Your task to perform on an android device: Empty the shopping cart on newegg. Add alienware area 51 to the cart on newegg Image 0: 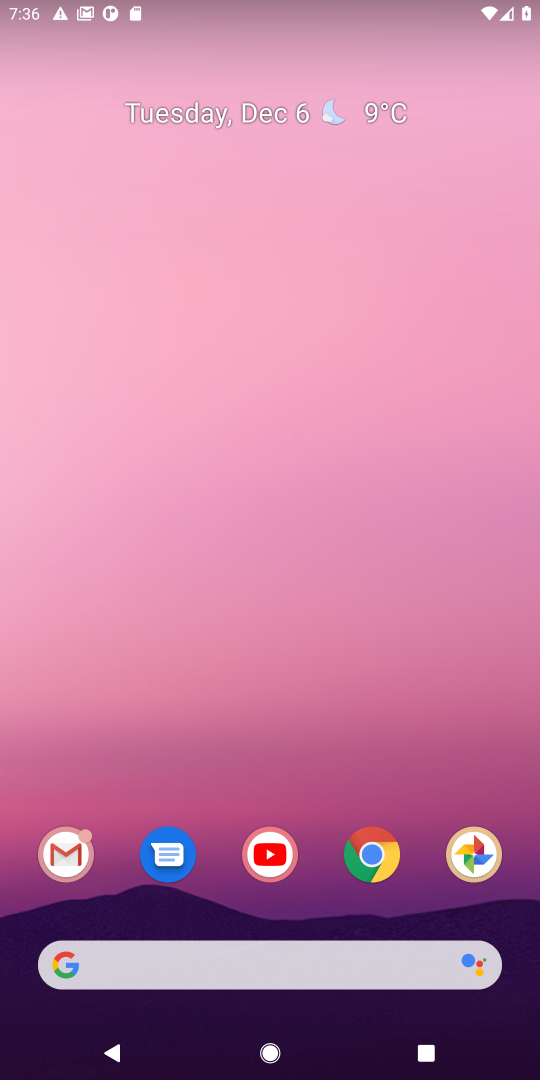
Step 0: click (374, 845)
Your task to perform on an android device: Empty the shopping cart on newegg. Add alienware area 51 to the cart on newegg Image 1: 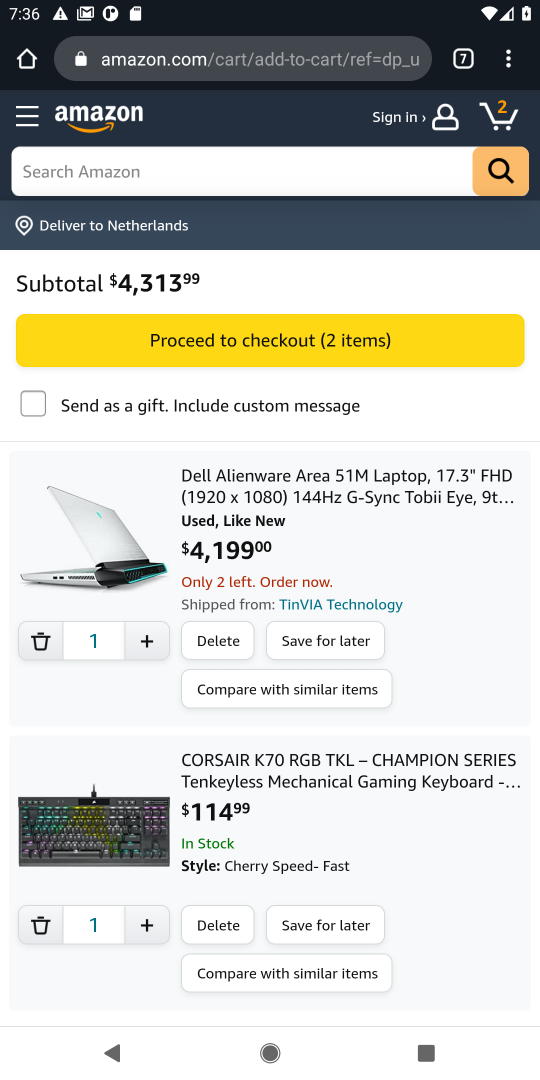
Step 1: click (450, 73)
Your task to perform on an android device: Empty the shopping cart on newegg. Add alienware area 51 to the cart on newegg Image 2: 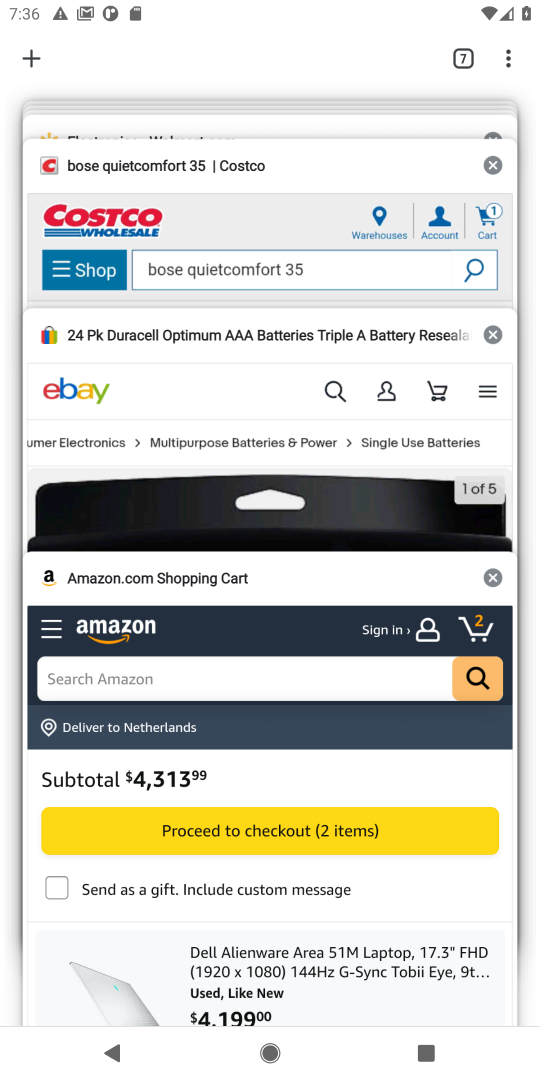
Step 2: drag from (231, 132) to (163, 448)
Your task to perform on an android device: Empty the shopping cart on newegg. Add alienware area 51 to the cart on newegg Image 3: 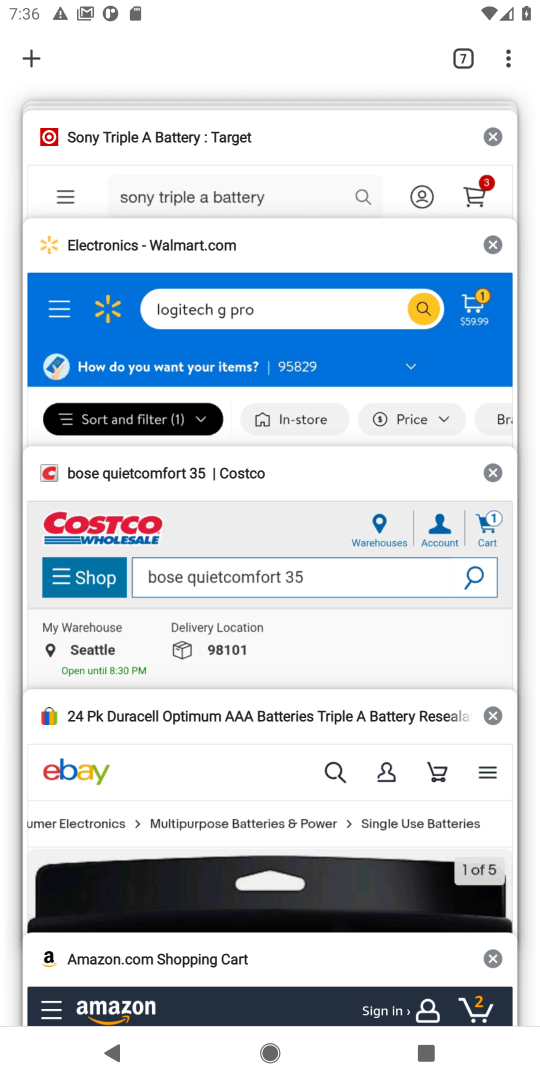
Step 3: drag from (257, 136) to (166, 391)
Your task to perform on an android device: Empty the shopping cart on newegg. Add alienware area 51 to the cart on newegg Image 4: 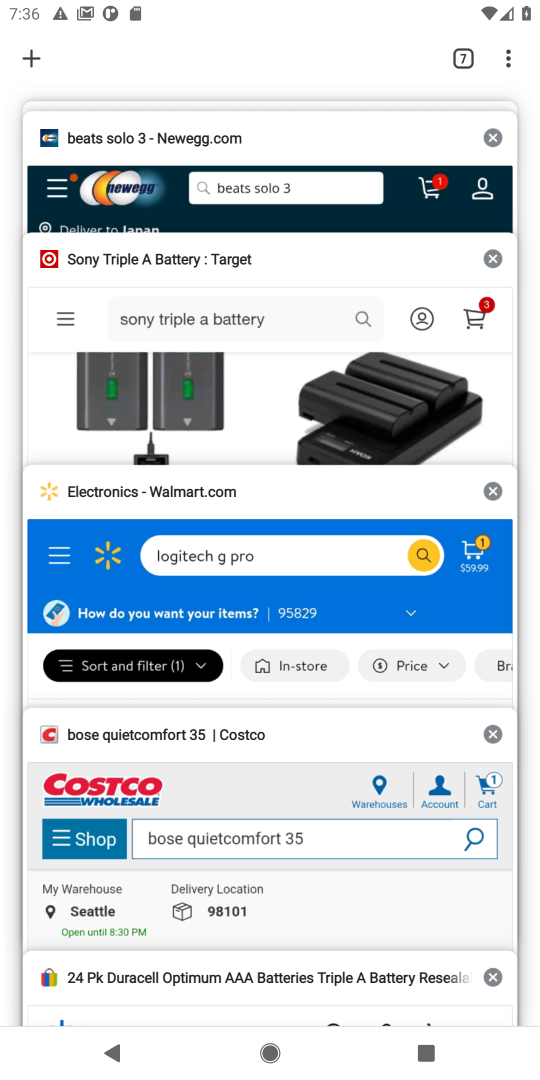
Step 4: click (224, 192)
Your task to perform on an android device: Empty the shopping cart on newegg. Add alienware area 51 to the cart on newegg Image 5: 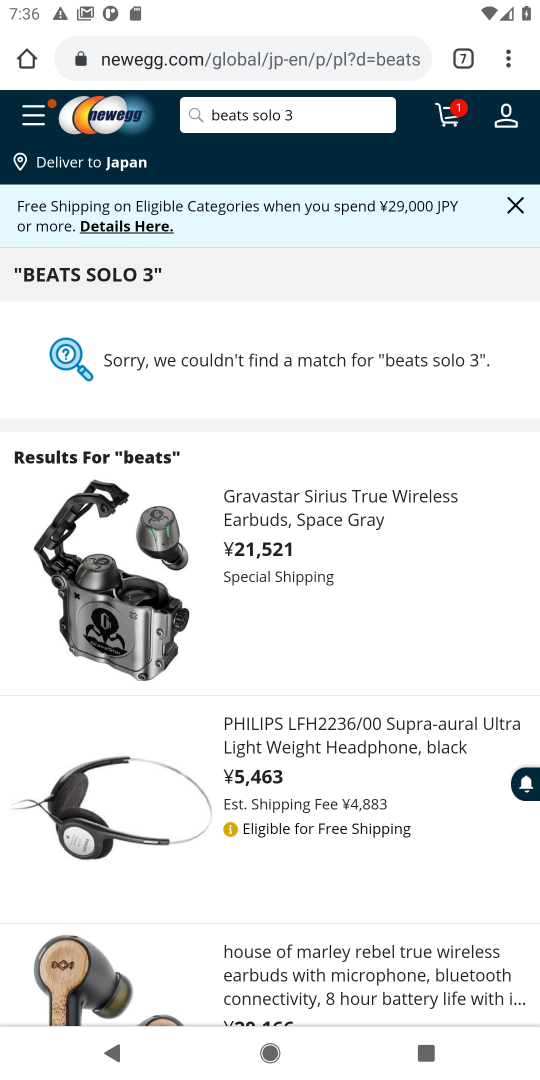
Step 5: click (454, 127)
Your task to perform on an android device: Empty the shopping cart on newegg. Add alienware area 51 to the cart on newegg Image 6: 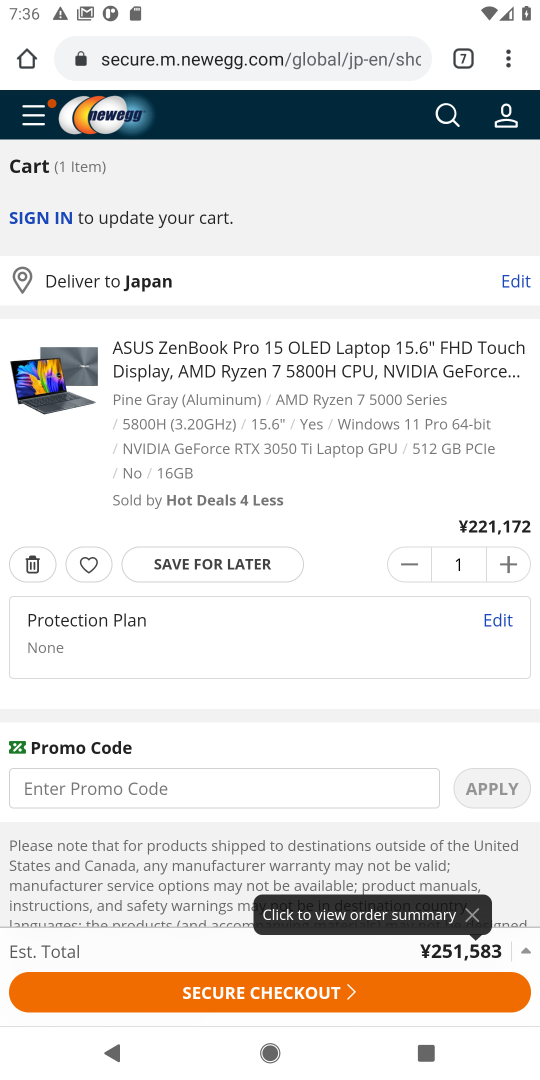
Step 6: click (33, 570)
Your task to perform on an android device: Empty the shopping cart on newegg. Add alienware area 51 to the cart on newegg Image 7: 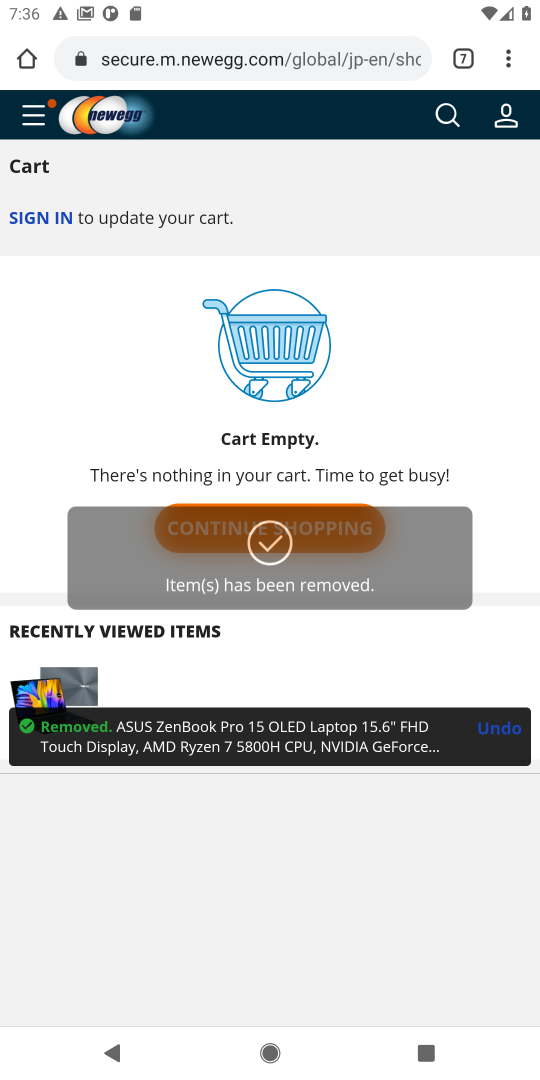
Step 7: click (454, 118)
Your task to perform on an android device: Empty the shopping cart on newegg. Add alienware area 51 to the cart on newegg Image 8: 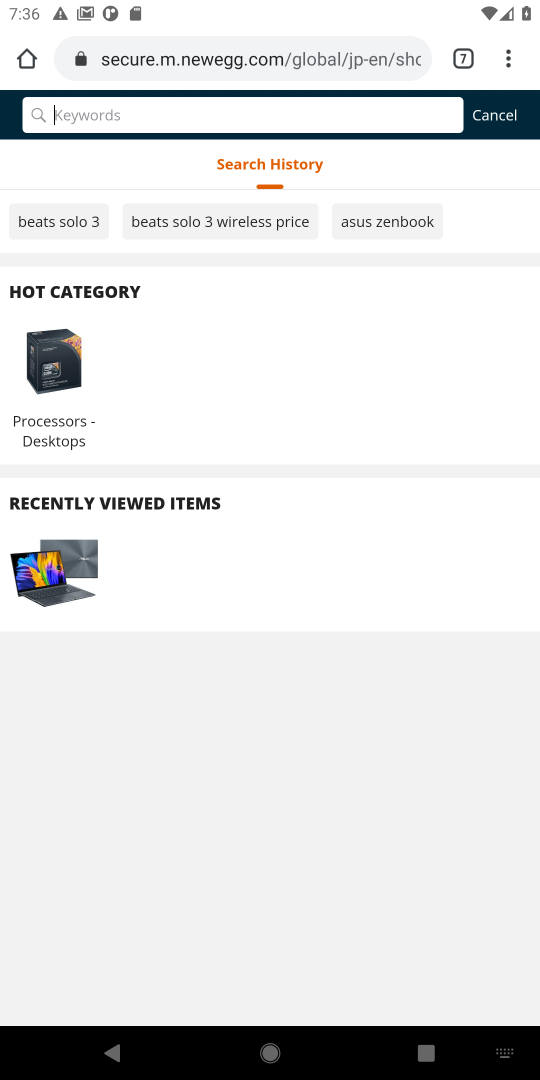
Step 8: type "alienware area 51"
Your task to perform on an android device: Empty the shopping cart on newegg. Add alienware area 51 to the cart on newegg Image 9: 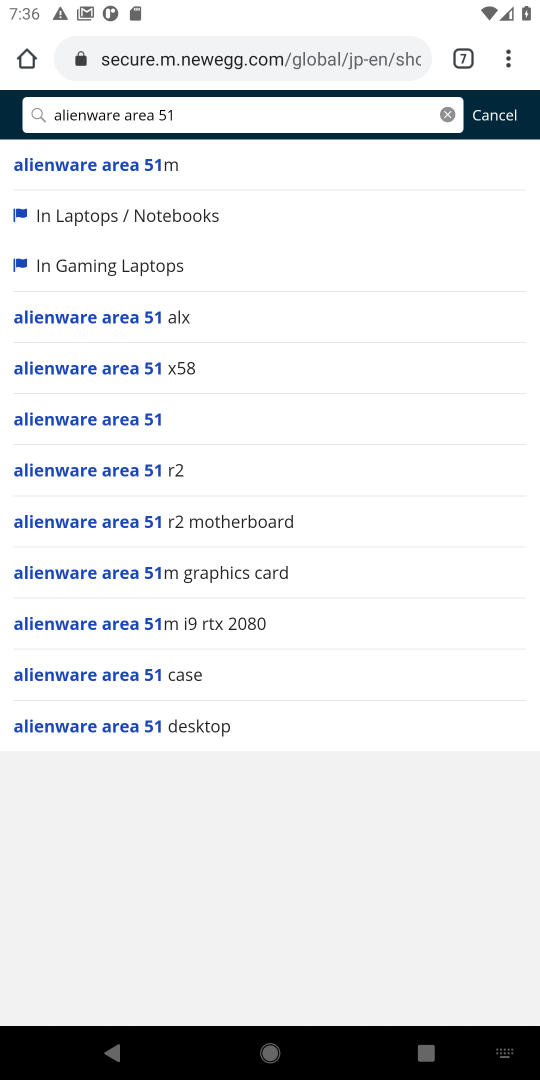
Step 9: click (100, 419)
Your task to perform on an android device: Empty the shopping cart on newegg. Add alienware area 51 to the cart on newegg Image 10: 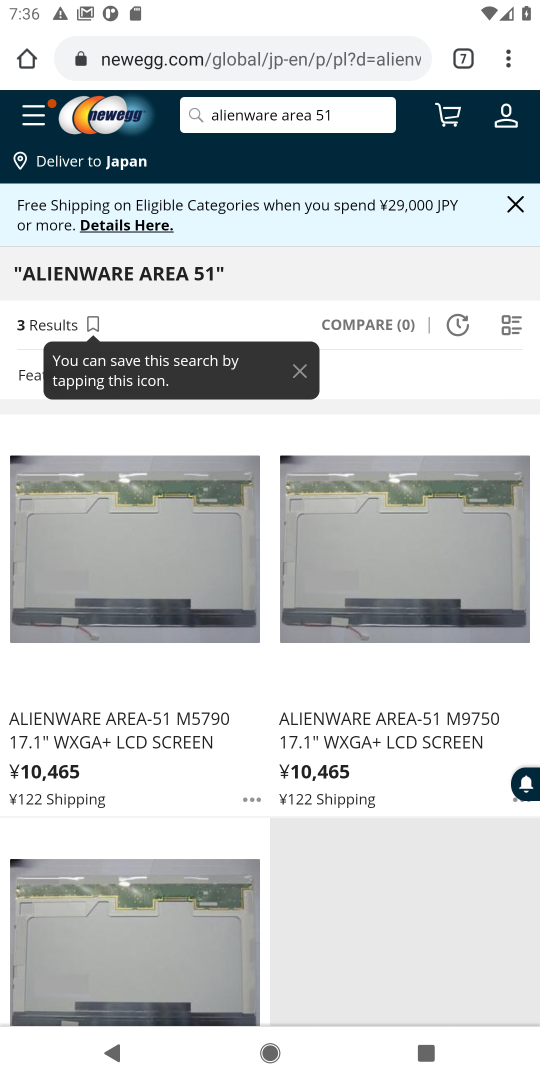
Step 10: click (111, 737)
Your task to perform on an android device: Empty the shopping cart on newegg. Add alienware area 51 to the cart on newegg Image 11: 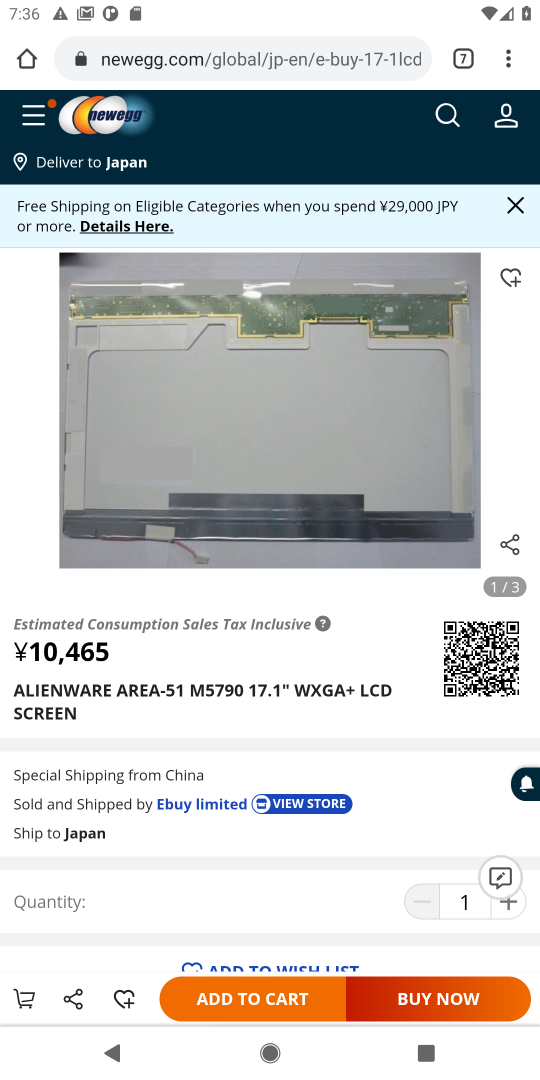
Step 11: click (241, 1002)
Your task to perform on an android device: Empty the shopping cart on newegg. Add alienware area 51 to the cart on newegg Image 12: 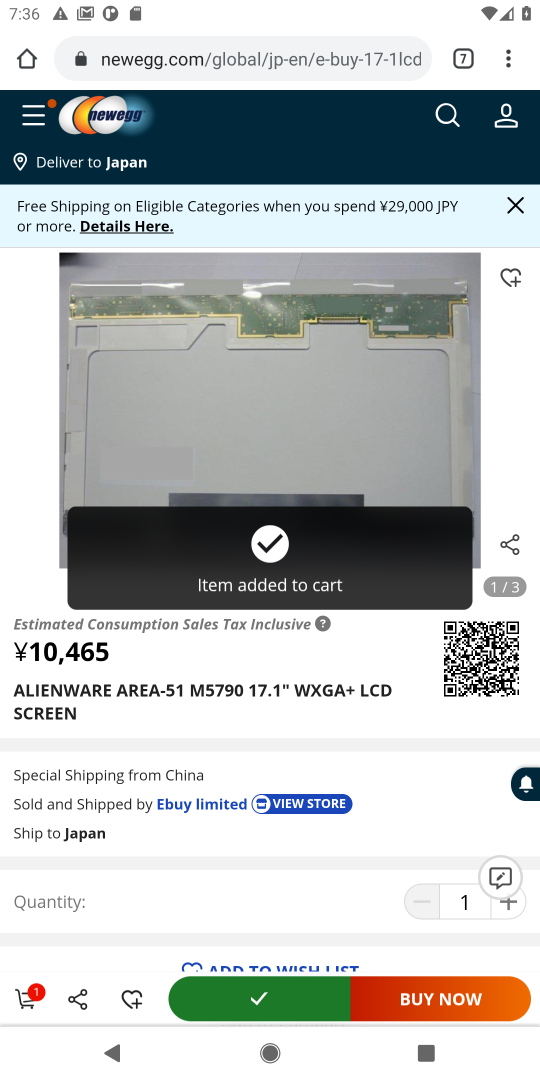
Step 12: task complete